Your task to perform on an android device: open chrome and create a bookmark for the current page Image 0: 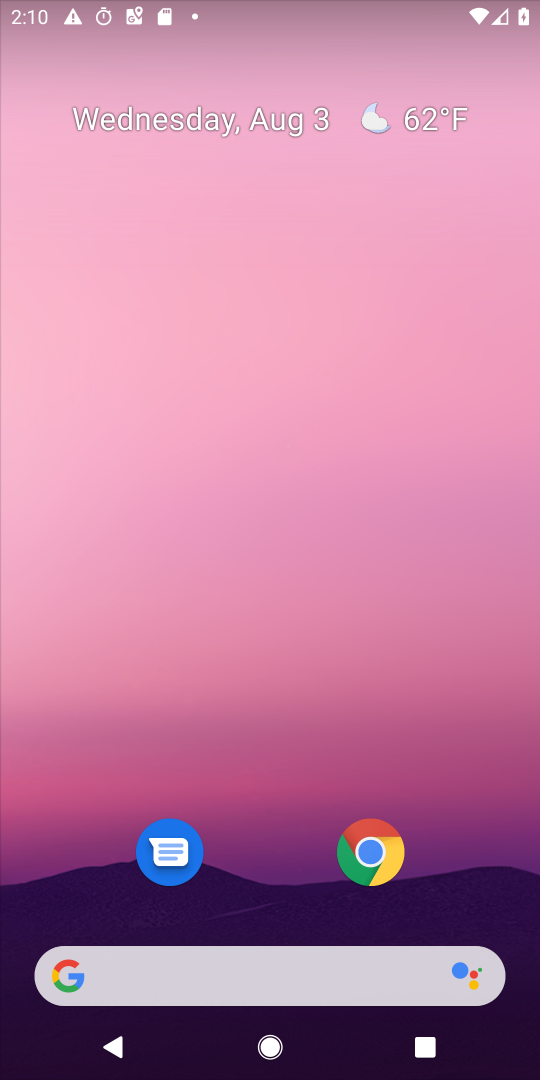
Step 0: drag from (466, 887) to (321, 30)
Your task to perform on an android device: open chrome and create a bookmark for the current page Image 1: 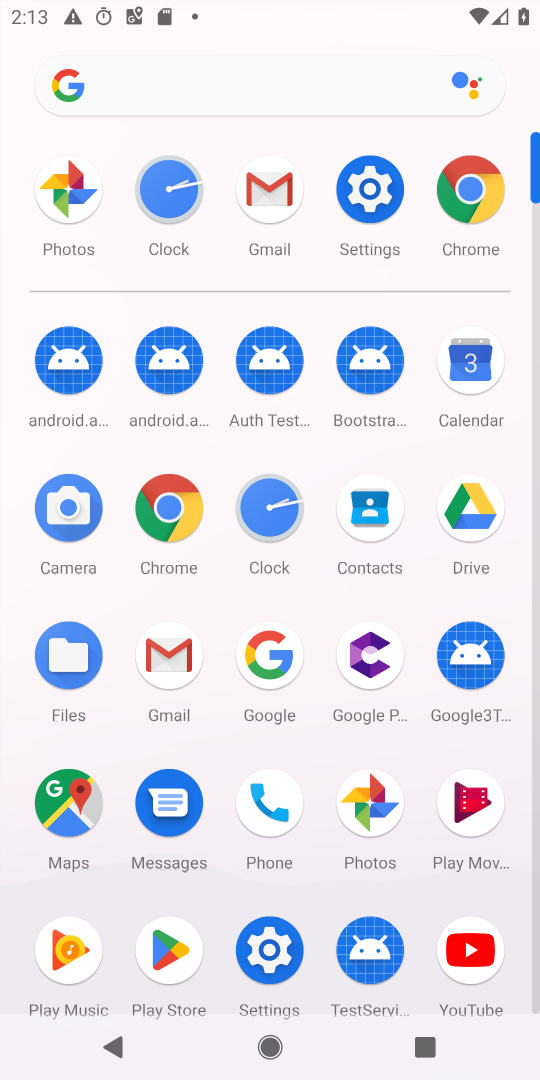
Step 1: click (176, 528)
Your task to perform on an android device: open chrome and create a bookmark for the current page Image 2: 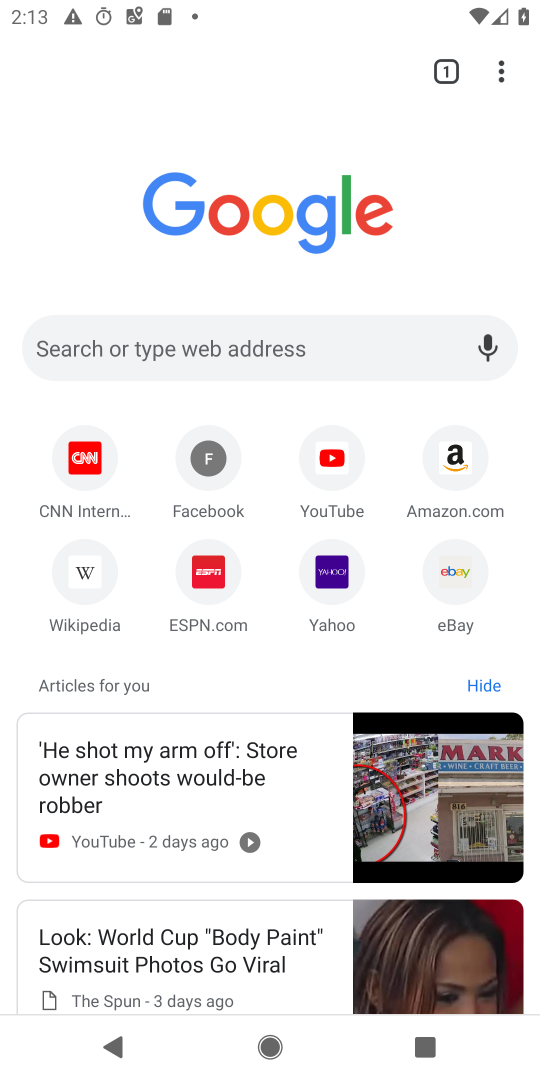
Step 2: click (504, 65)
Your task to perform on an android device: open chrome and create a bookmark for the current page Image 3: 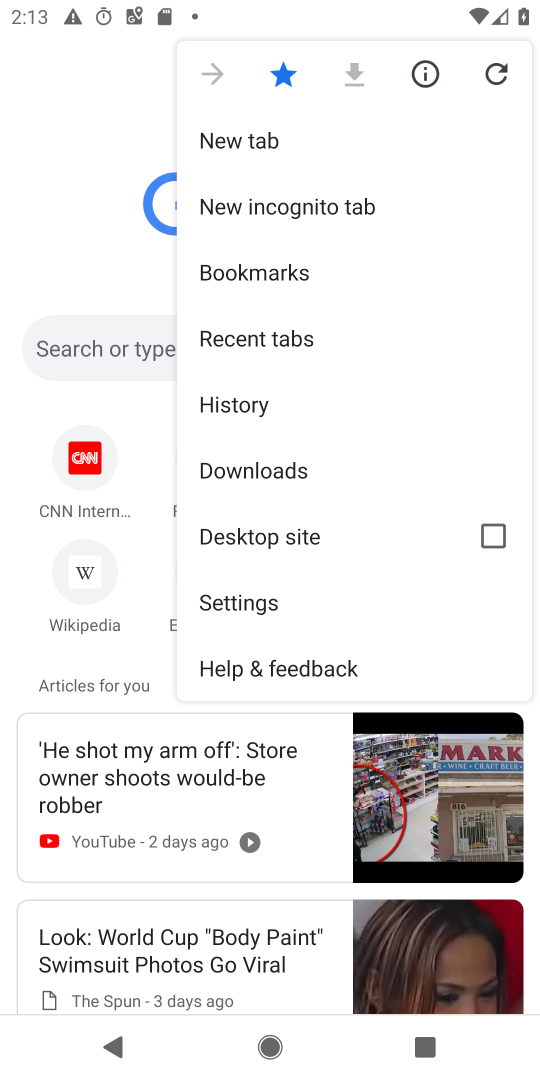
Step 3: task complete